Your task to perform on an android device: install app "Gmail" Image 0: 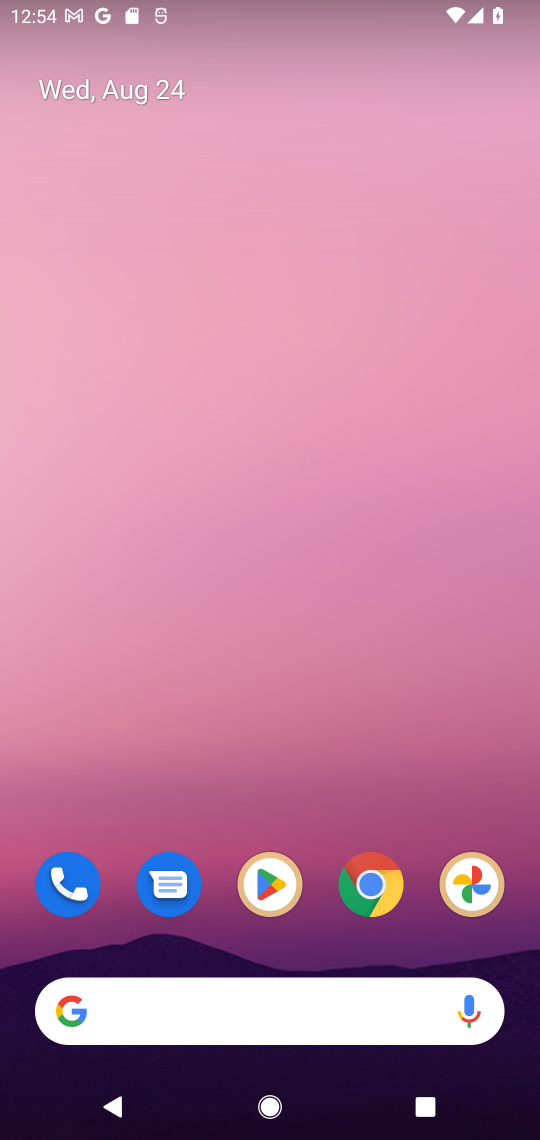
Step 0: drag from (215, 1016) to (246, 79)
Your task to perform on an android device: install app "Gmail" Image 1: 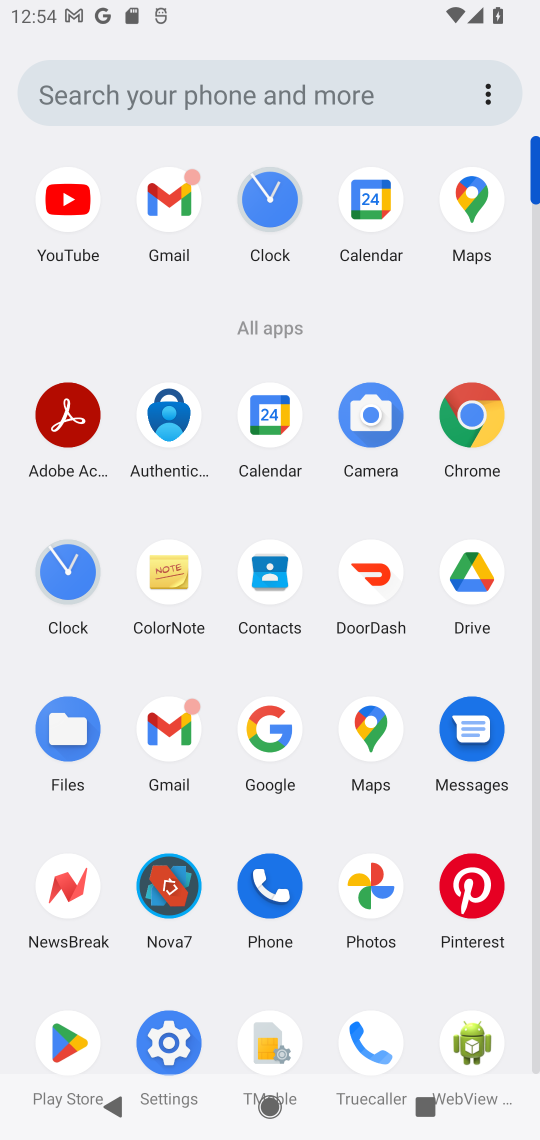
Step 1: click (65, 1051)
Your task to perform on an android device: install app "Gmail" Image 2: 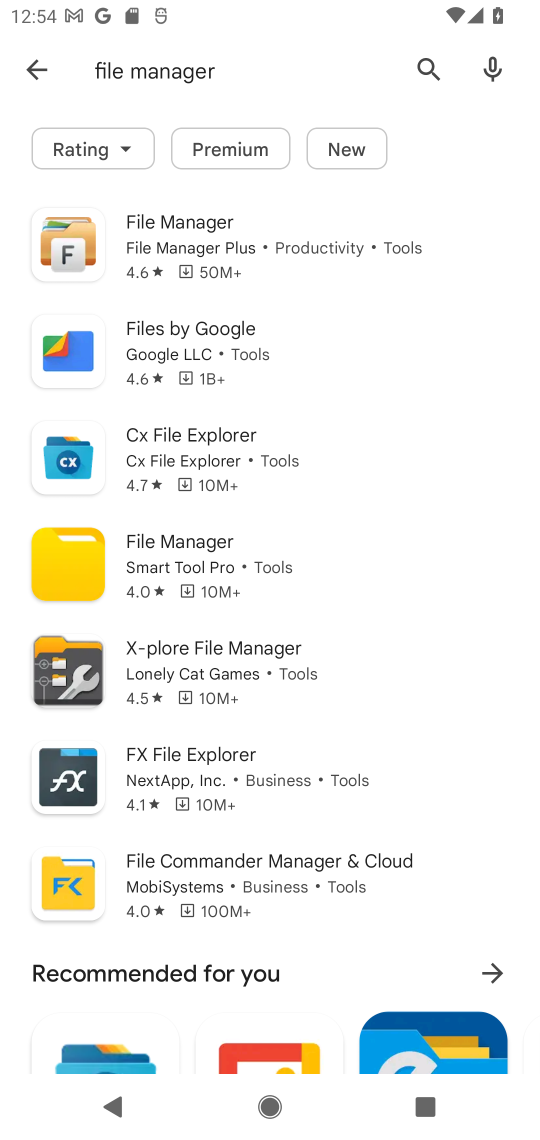
Step 2: press back button
Your task to perform on an android device: install app "Gmail" Image 3: 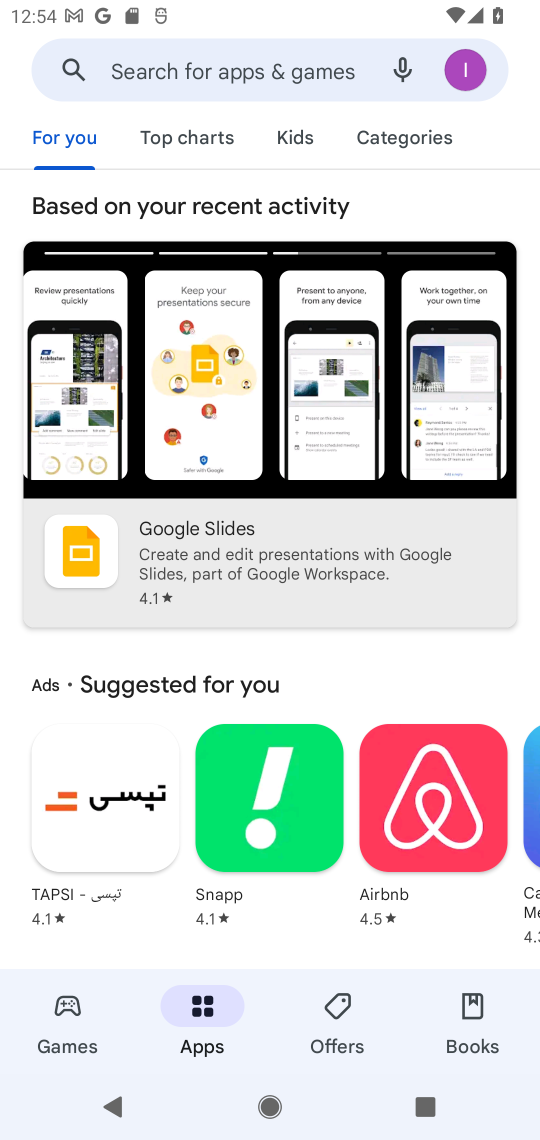
Step 3: click (214, 60)
Your task to perform on an android device: install app "Gmail" Image 4: 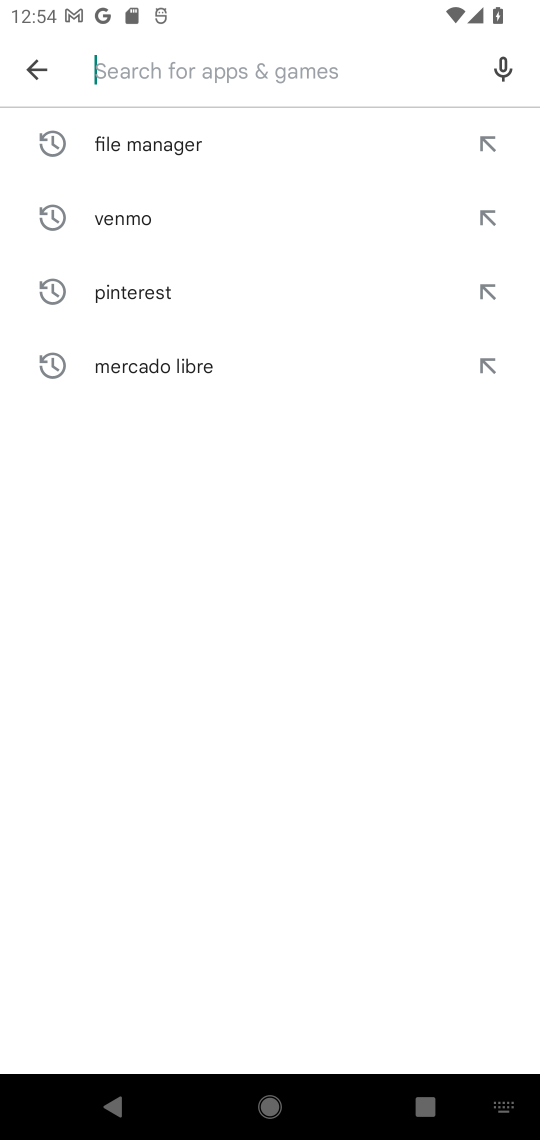
Step 4: type "Gmail"
Your task to perform on an android device: install app "Gmail" Image 5: 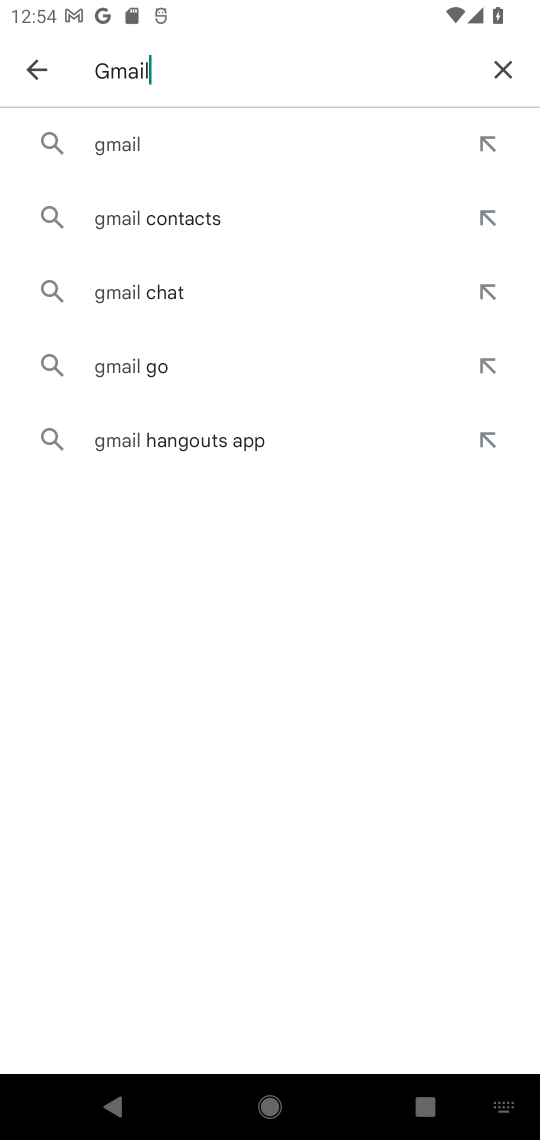
Step 5: click (108, 142)
Your task to perform on an android device: install app "Gmail" Image 6: 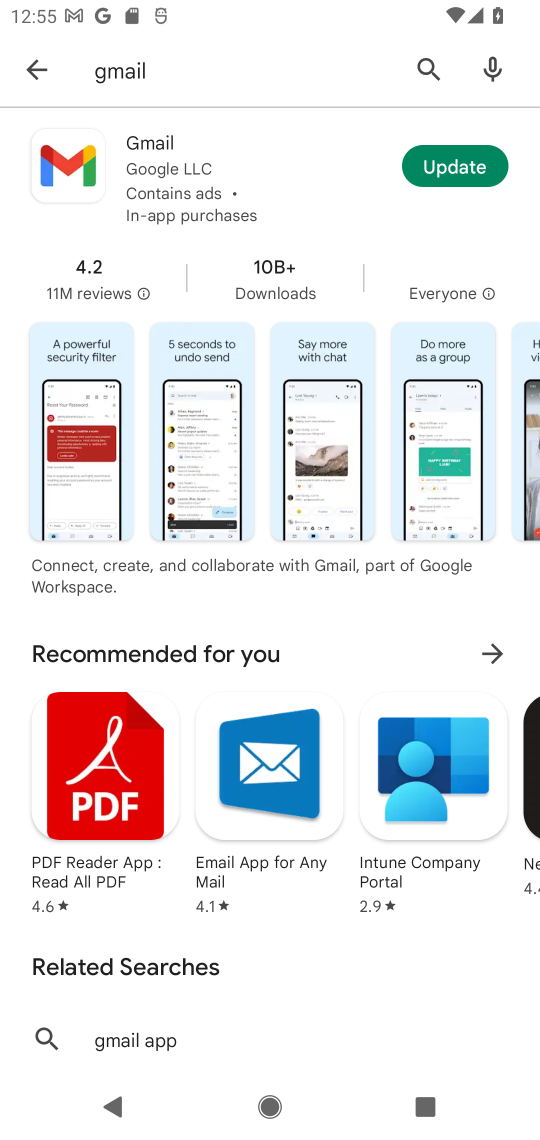
Step 6: click (148, 130)
Your task to perform on an android device: install app "Gmail" Image 7: 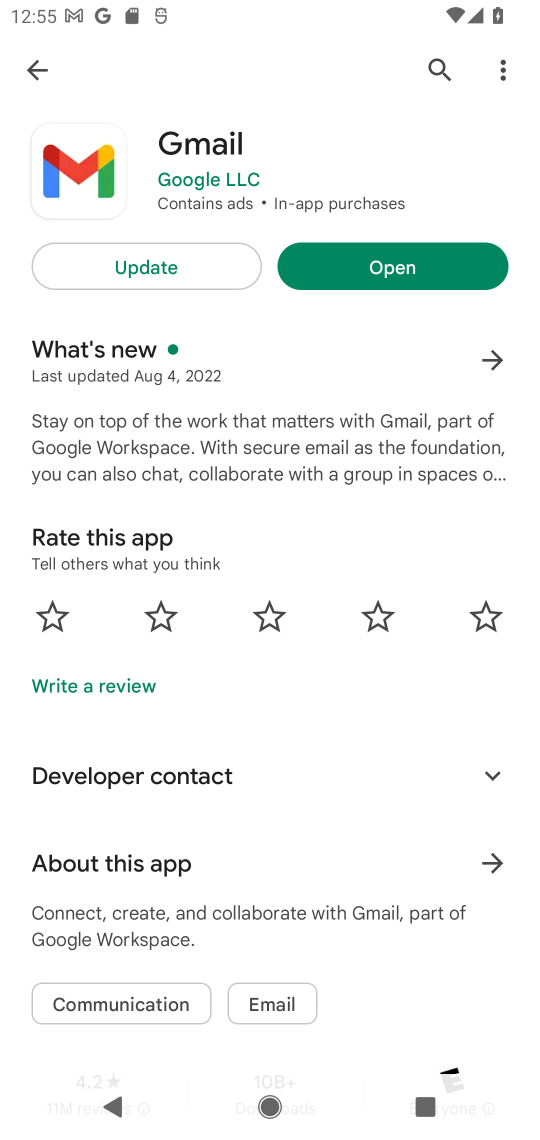
Step 7: click (169, 267)
Your task to perform on an android device: install app "Gmail" Image 8: 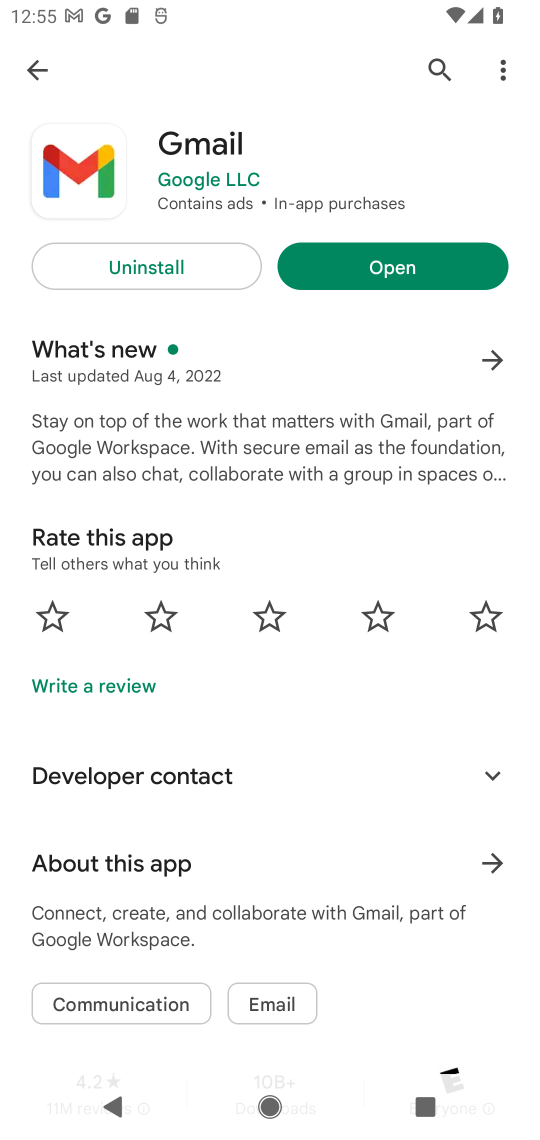
Step 8: task complete